Your task to perform on an android device: check the backup settings in the google photos Image 0: 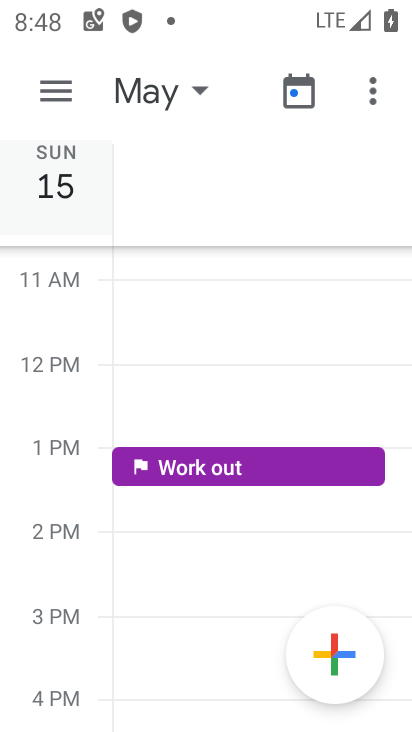
Step 0: press home button
Your task to perform on an android device: check the backup settings in the google photos Image 1: 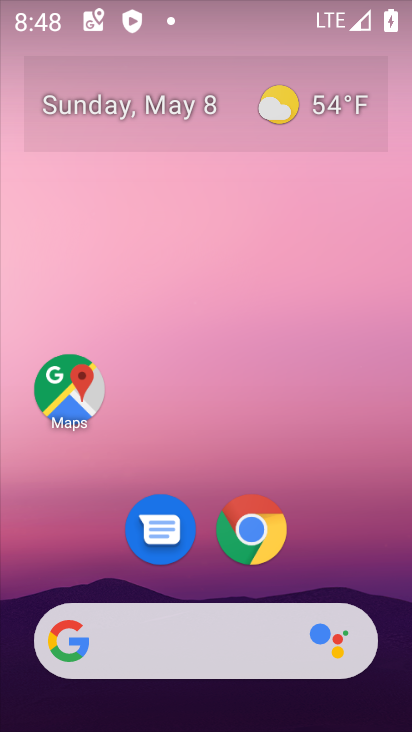
Step 1: drag from (389, 579) to (346, 161)
Your task to perform on an android device: check the backup settings in the google photos Image 2: 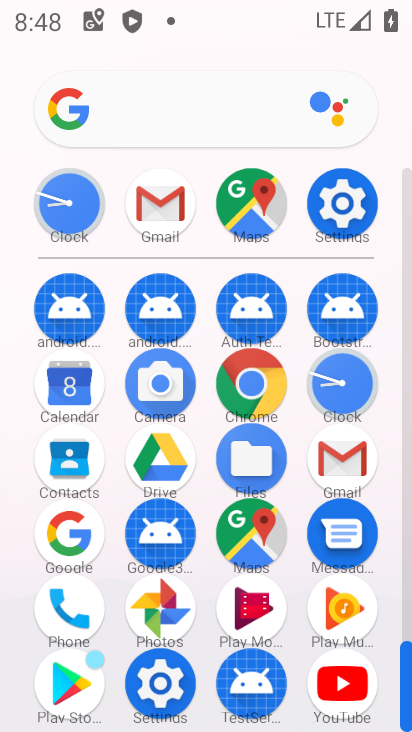
Step 2: click (157, 607)
Your task to perform on an android device: check the backup settings in the google photos Image 3: 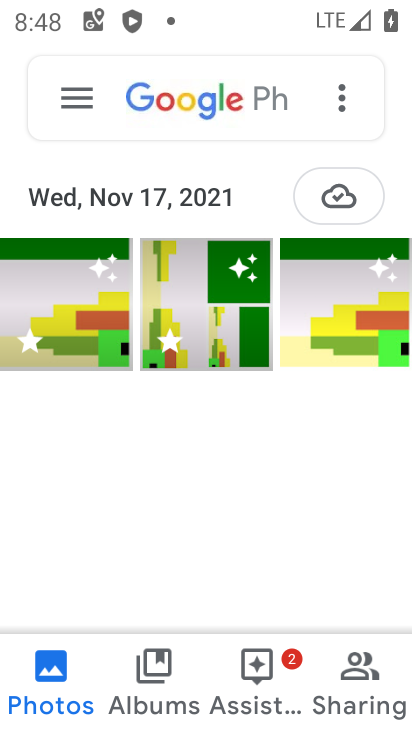
Step 3: click (73, 109)
Your task to perform on an android device: check the backup settings in the google photos Image 4: 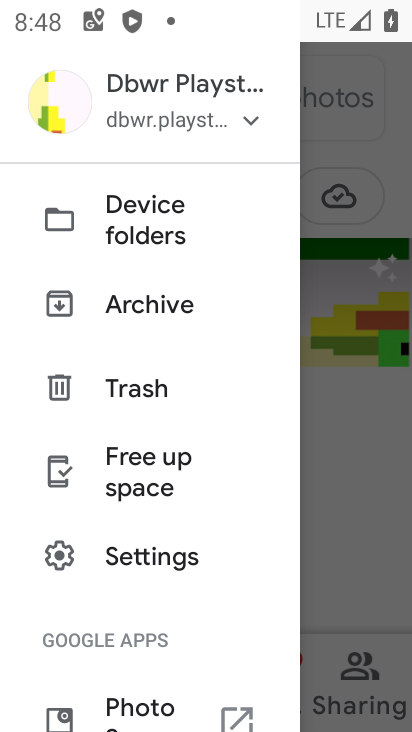
Step 4: click (131, 556)
Your task to perform on an android device: check the backup settings in the google photos Image 5: 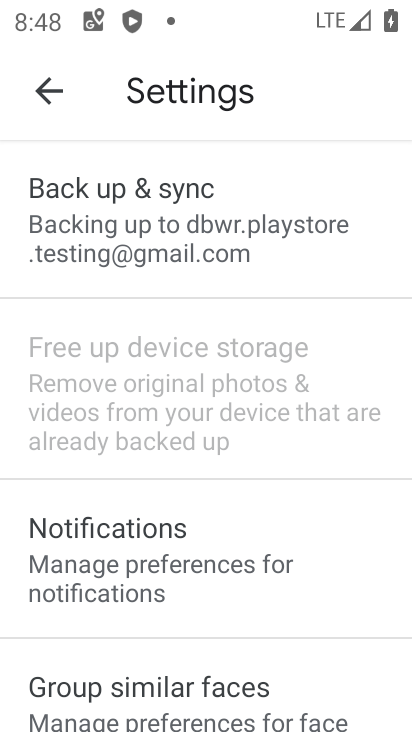
Step 5: click (182, 210)
Your task to perform on an android device: check the backup settings in the google photos Image 6: 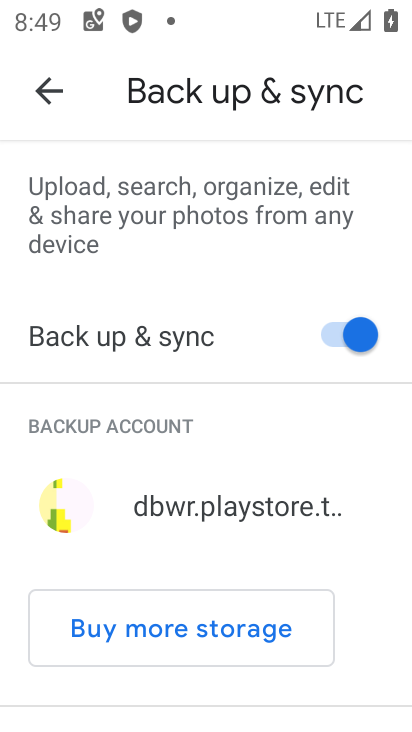
Step 6: drag from (324, 565) to (276, 266)
Your task to perform on an android device: check the backup settings in the google photos Image 7: 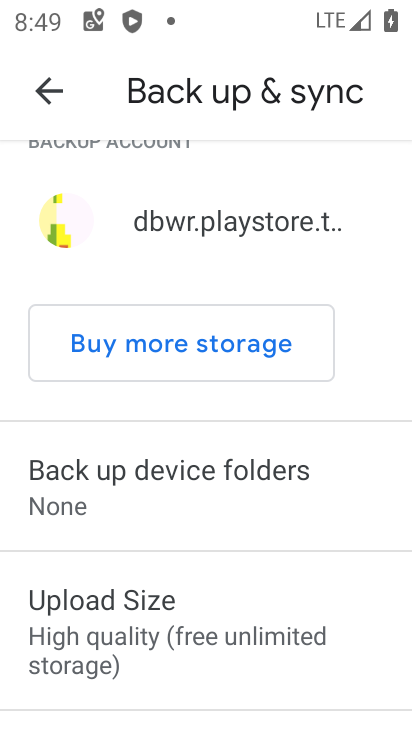
Step 7: drag from (347, 585) to (362, 294)
Your task to perform on an android device: check the backup settings in the google photos Image 8: 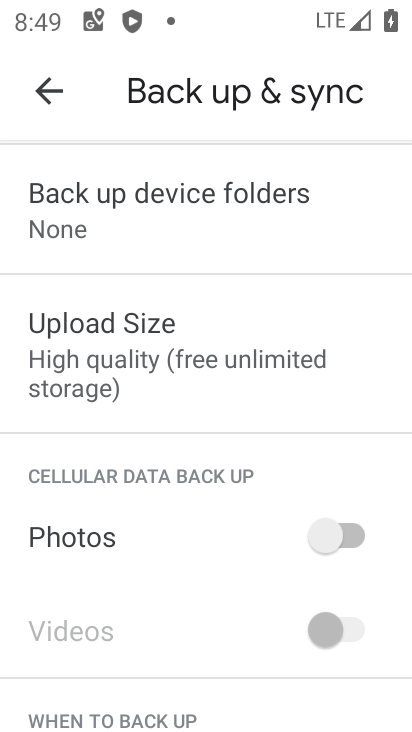
Step 8: drag from (195, 579) to (210, 328)
Your task to perform on an android device: check the backup settings in the google photos Image 9: 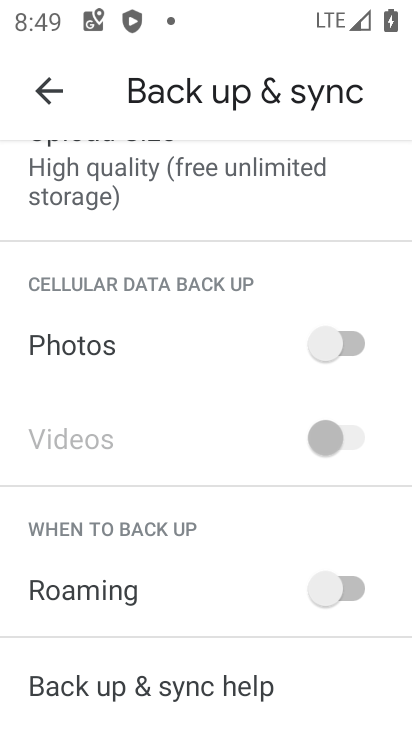
Step 9: click (176, 676)
Your task to perform on an android device: check the backup settings in the google photos Image 10: 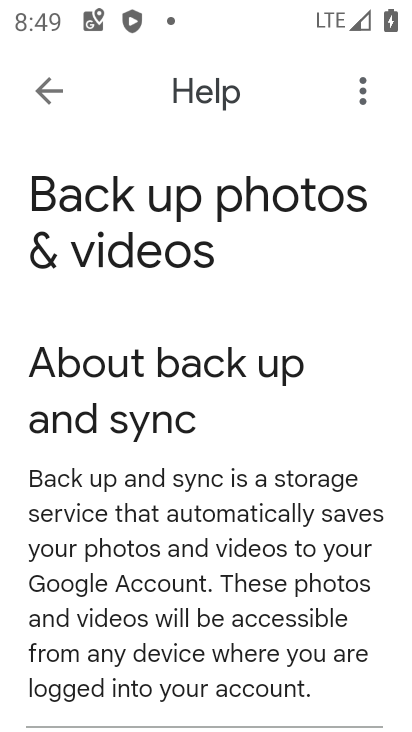
Step 10: task complete